Your task to perform on an android device: change the clock display to digital Image 0: 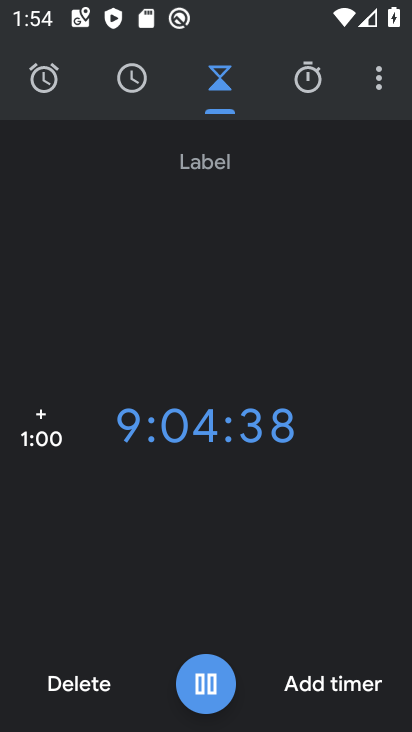
Step 0: press home button
Your task to perform on an android device: change the clock display to digital Image 1: 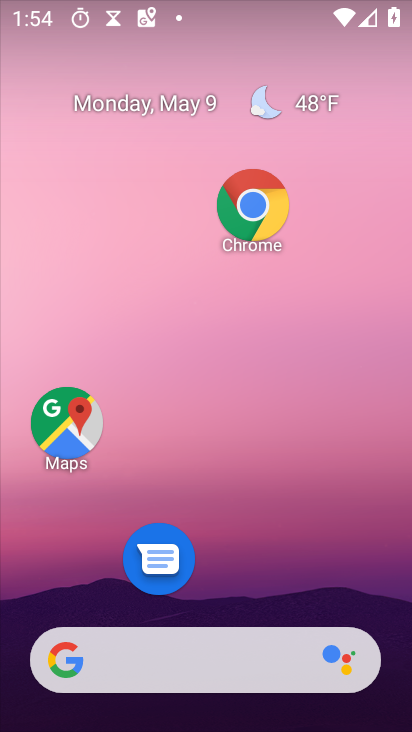
Step 1: drag from (328, 459) to (366, 244)
Your task to perform on an android device: change the clock display to digital Image 2: 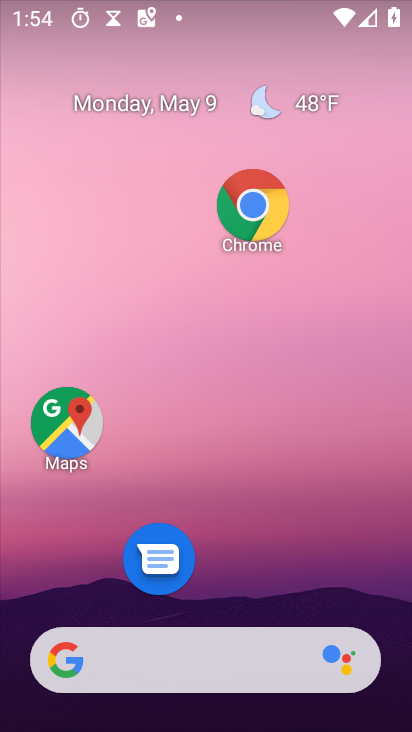
Step 2: drag from (293, 592) to (355, 280)
Your task to perform on an android device: change the clock display to digital Image 3: 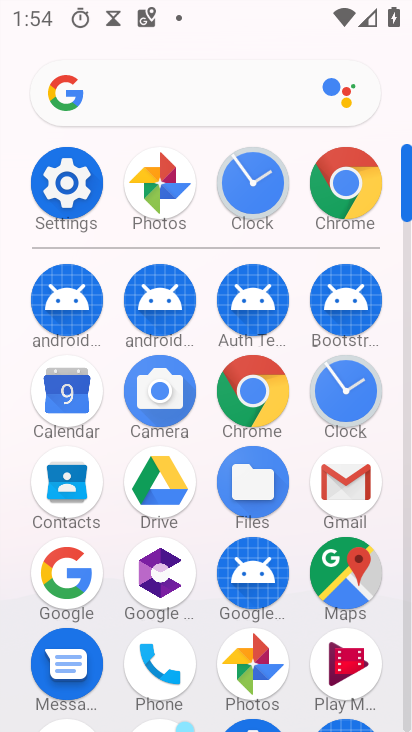
Step 3: click (81, 165)
Your task to perform on an android device: change the clock display to digital Image 4: 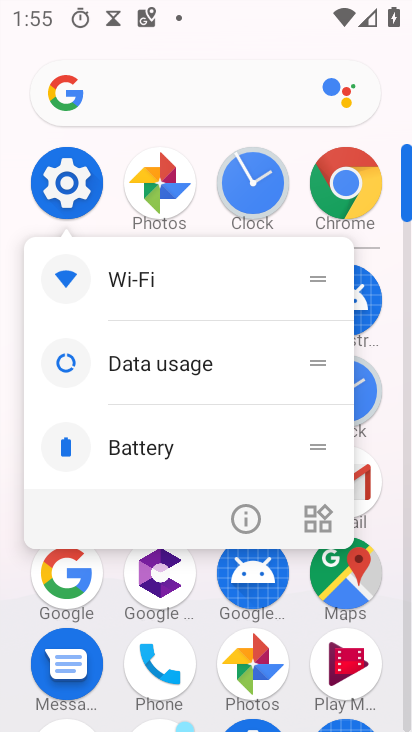
Step 4: click (94, 190)
Your task to perform on an android device: change the clock display to digital Image 5: 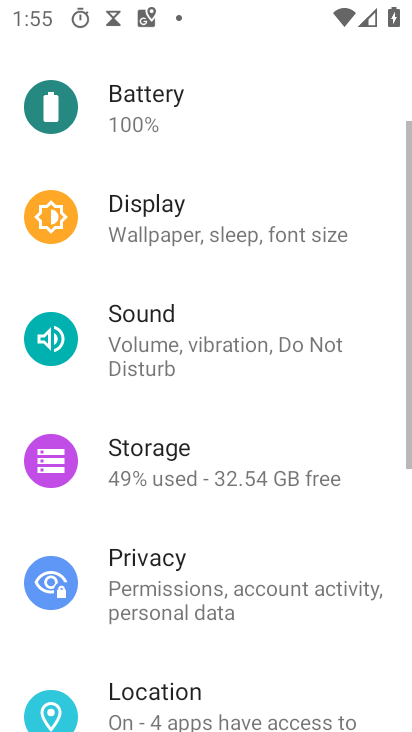
Step 5: click (355, 355)
Your task to perform on an android device: change the clock display to digital Image 6: 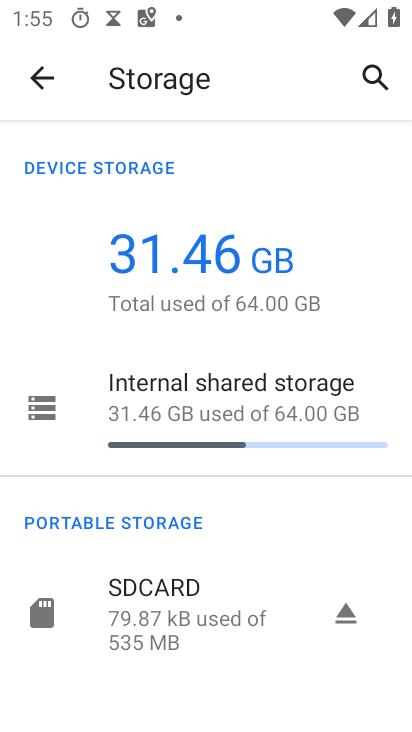
Step 6: press back button
Your task to perform on an android device: change the clock display to digital Image 7: 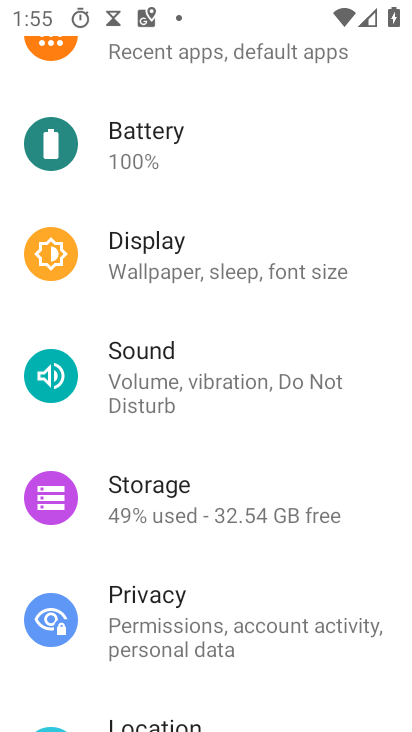
Step 7: press back button
Your task to perform on an android device: change the clock display to digital Image 8: 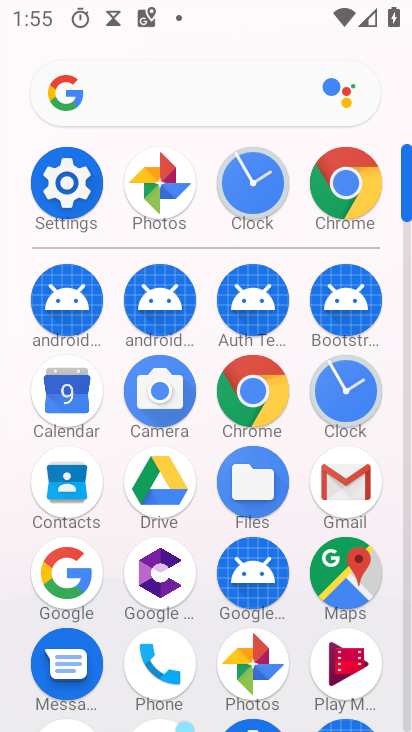
Step 8: click (313, 385)
Your task to perform on an android device: change the clock display to digital Image 9: 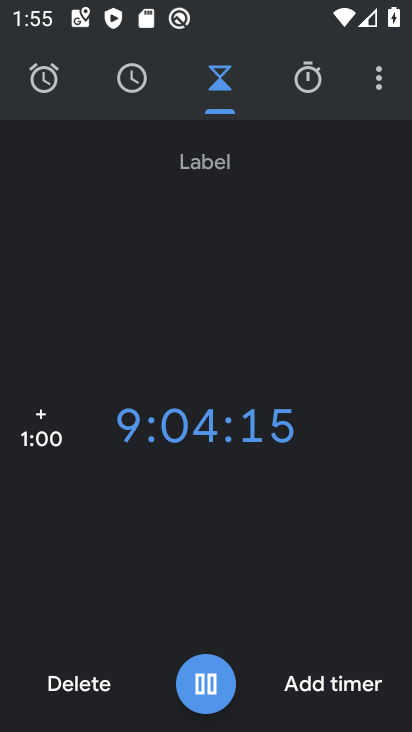
Step 9: click (368, 76)
Your task to perform on an android device: change the clock display to digital Image 10: 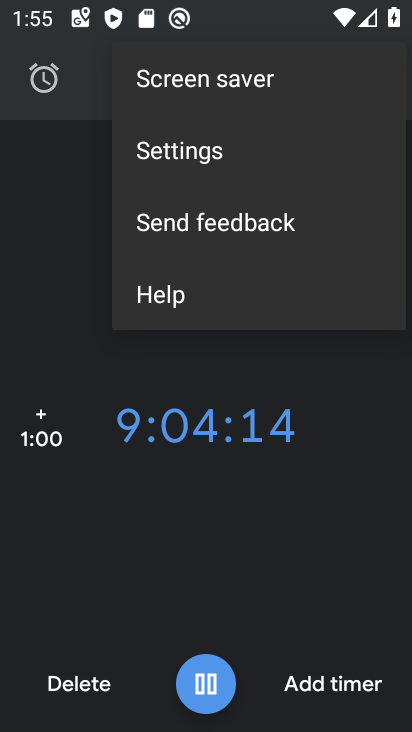
Step 10: click (240, 146)
Your task to perform on an android device: change the clock display to digital Image 11: 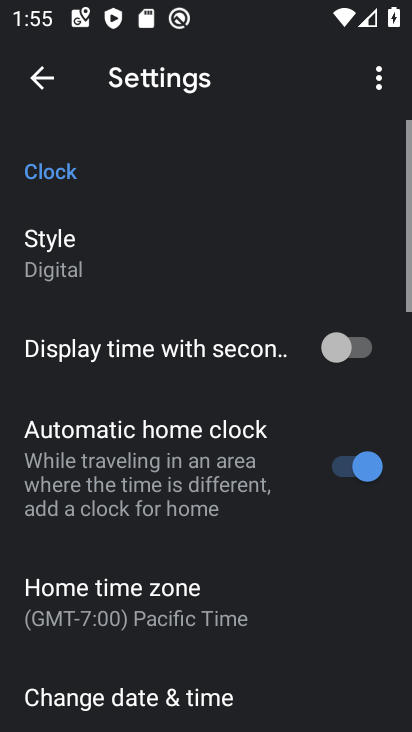
Step 11: click (108, 247)
Your task to perform on an android device: change the clock display to digital Image 12: 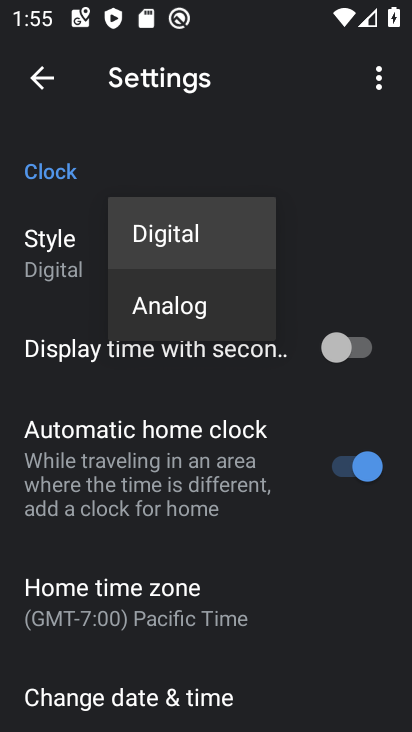
Step 12: click (162, 299)
Your task to perform on an android device: change the clock display to digital Image 13: 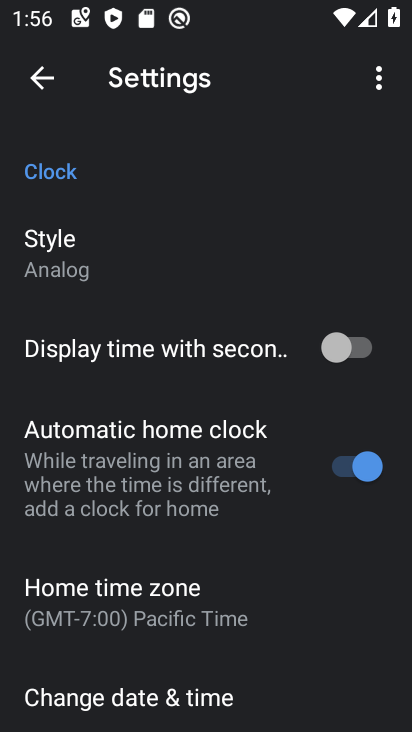
Step 13: task complete